Your task to perform on an android device: open the mobile data screen to see how much data has been used Image 0: 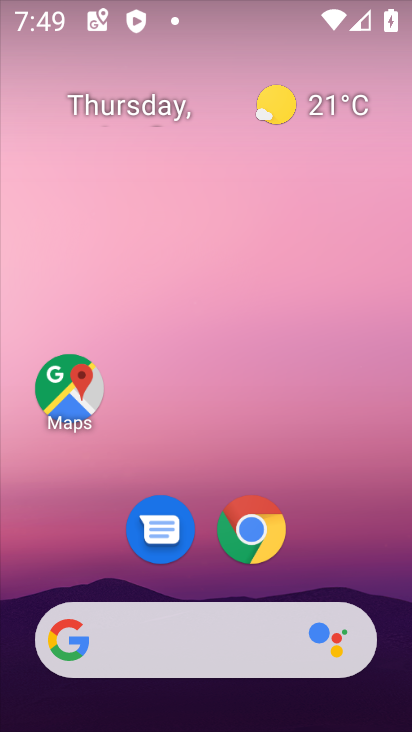
Step 0: drag from (192, 698) to (146, 182)
Your task to perform on an android device: open the mobile data screen to see how much data has been used Image 1: 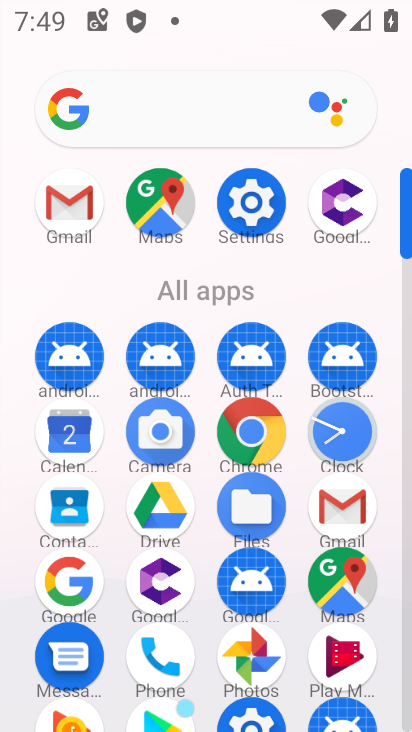
Step 1: click (263, 224)
Your task to perform on an android device: open the mobile data screen to see how much data has been used Image 2: 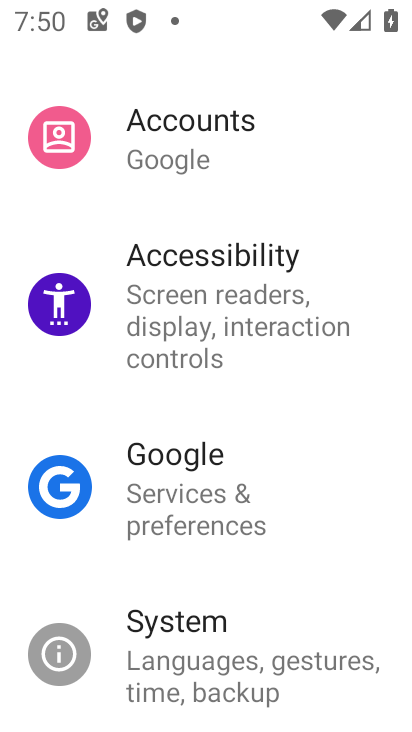
Step 2: drag from (226, 155) to (276, 695)
Your task to perform on an android device: open the mobile data screen to see how much data has been used Image 3: 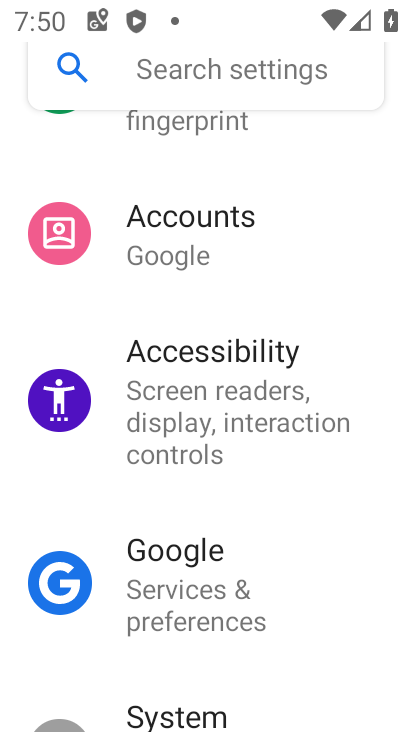
Step 3: drag from (245, 181) to (302, 451)
Your task to perform on an android device: open the mobile data screen to see how much data has been used Image 4: 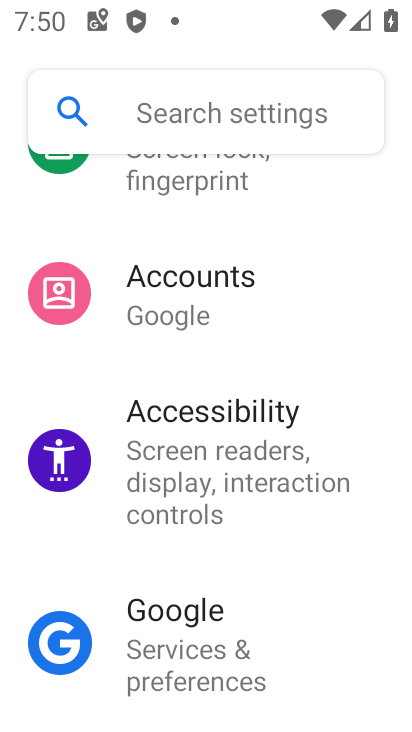
Step 4: drag from (294, 224) to (384, 626)
Your task to perform on an android device: open the mobile data screen to see how much data has been used Image 5: 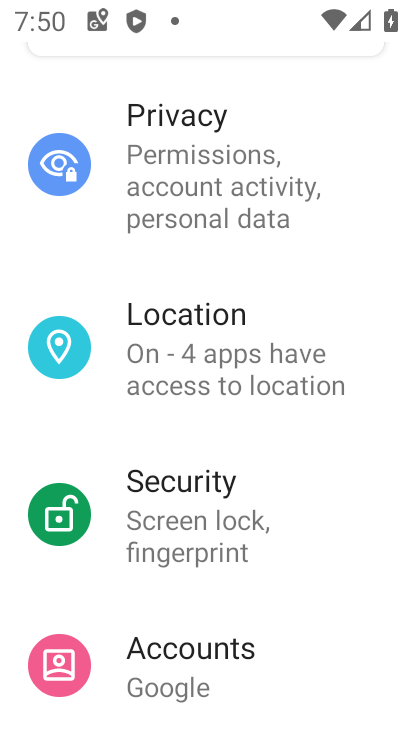
Step 5: drag from (342, 244) to (404, 691)
Your task to perform on an android device: open the mobile data screen to see how much data has been used Image 6: 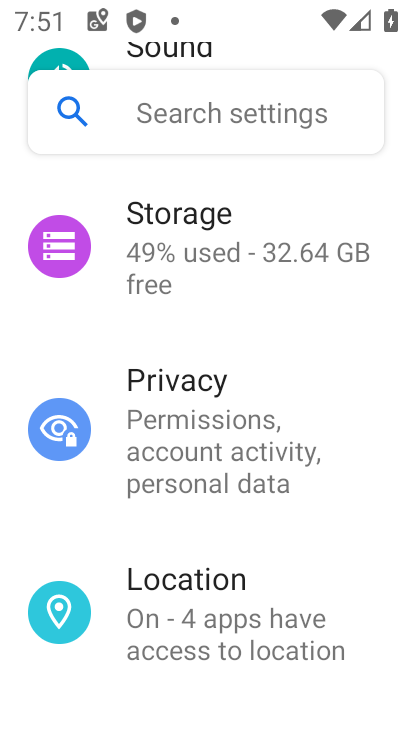
Step 6: drag from (332, 205) to (377, 670)
Your task to perform on an android device: open the mobile data screen to see how much data has been used Image 7: 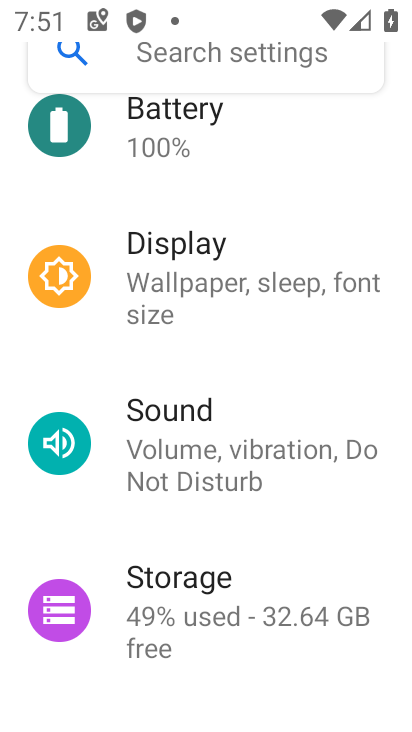
Step 7: drag from (297, 198) to (312, 540)
Your task to perform on an android device: open the mobile data screen to see how much data has been used Image 8: 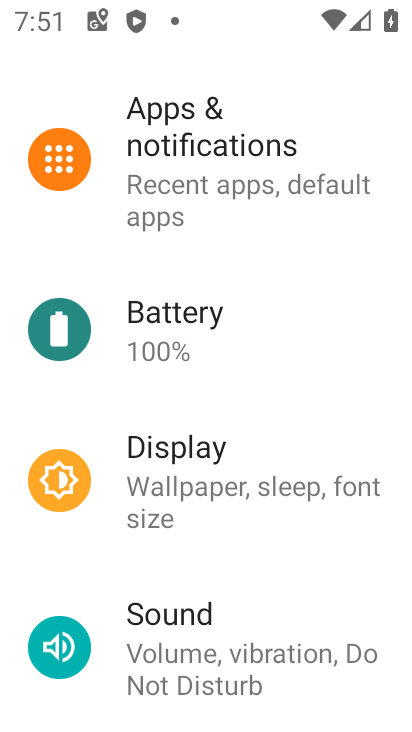
Step 8: drag from (325, 118) to (372, 688)
Your task to perform on an android device: open the mobile data screen to see how much data has been used Image 9: 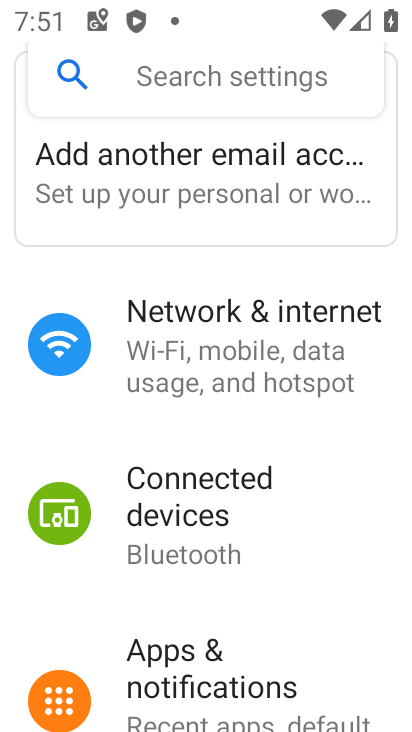
Step 9: click (250, 360)
Your task to perform on an android device: open the mobile data screen to see how much data has been used Image 10: 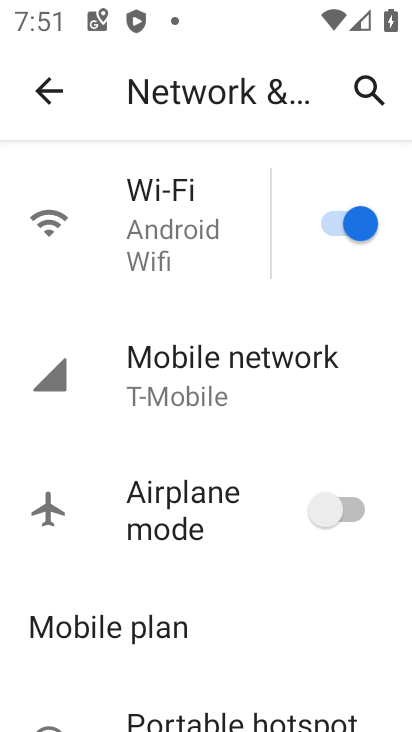
Step 10: click (236, 401)
Your task to perform on an android device: open the mobile data screen to see how much data has been used Image 11: 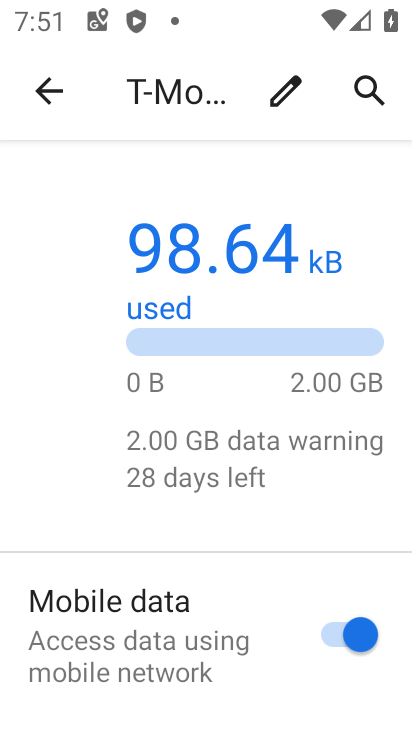
Step 11: task complete